Your task to perform on an android device: open a new tab in the chrome app Image 0: 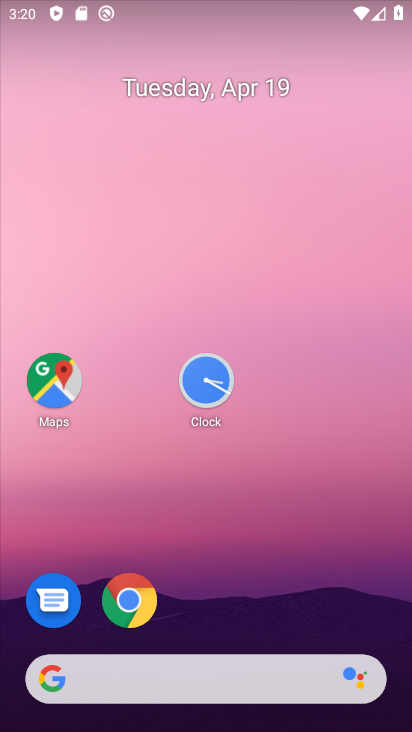
Step 0: drag from (276, 620) to (248, 156)
Your task to perform on an android device: open a new tab in the chrome app Image 1: 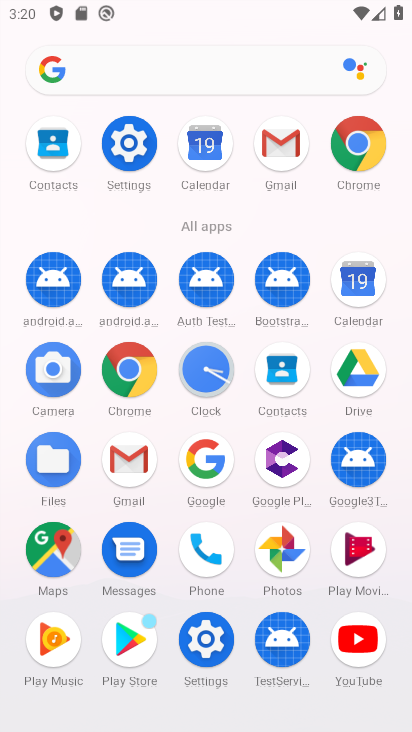
Step 1: click (353, 150)
Your task to perform on an android device: open a new tab in the chrome app Image 2: 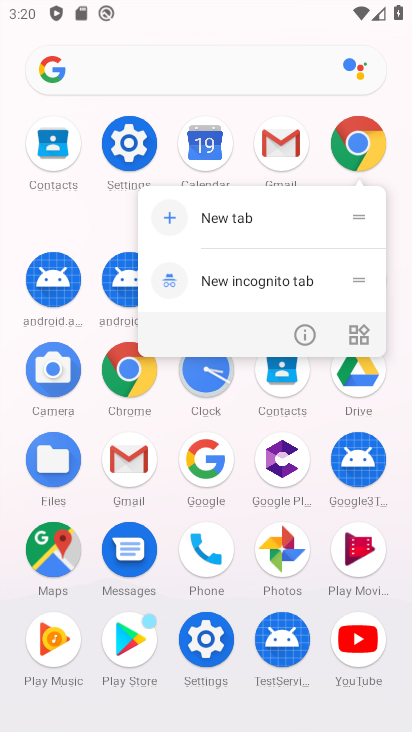
Step 2: click (353, 150)
Your task to perform on an android device: open a new tab in the chrome app Image 3: 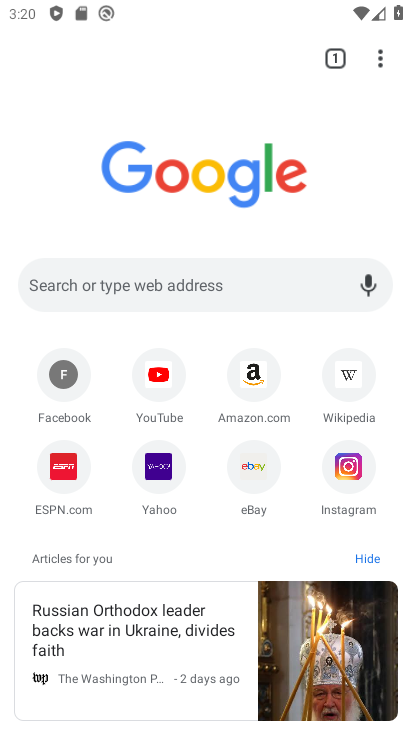
Step 3: click (383, 56)
Your task to perform on an android device: open a new tab in the chrome app Image 4: 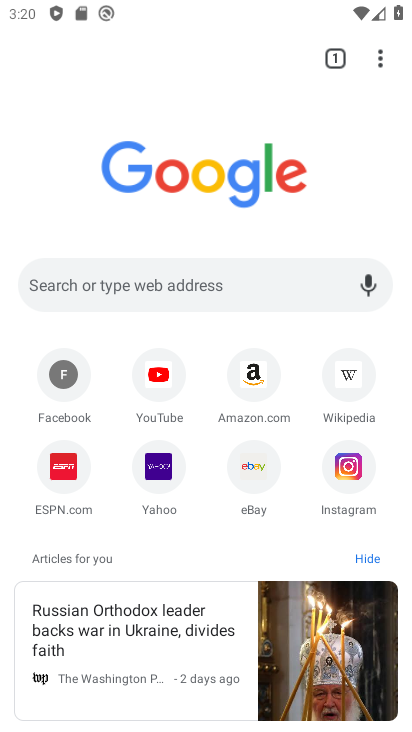
Step 4: click (381, 49)
Your task to perform on an android device: open a new tab in the chrome app Image 5: 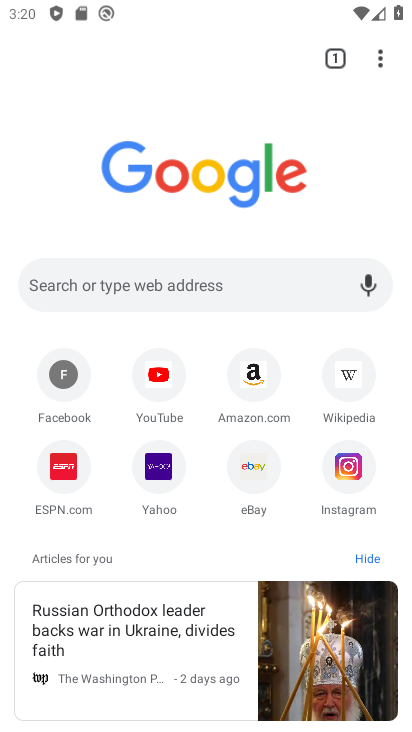
Step 5: click (382, 48)
Your task to perform on an android device: open a new tab in the chrome app Image 6: 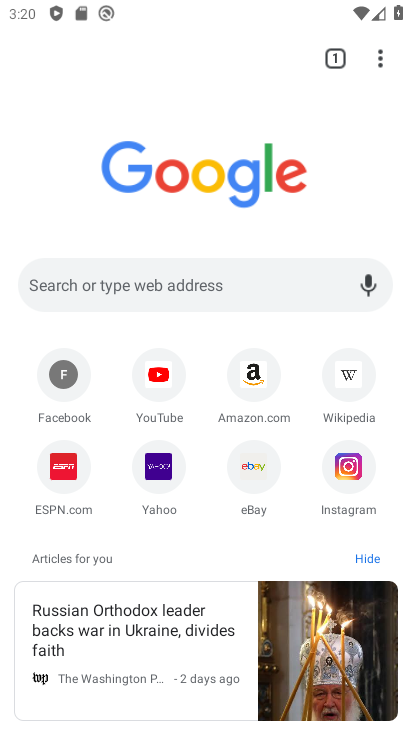
Step 6: click (381, 56)
Your task to perform on an android device: open a new tab in the chrome app Image 7: 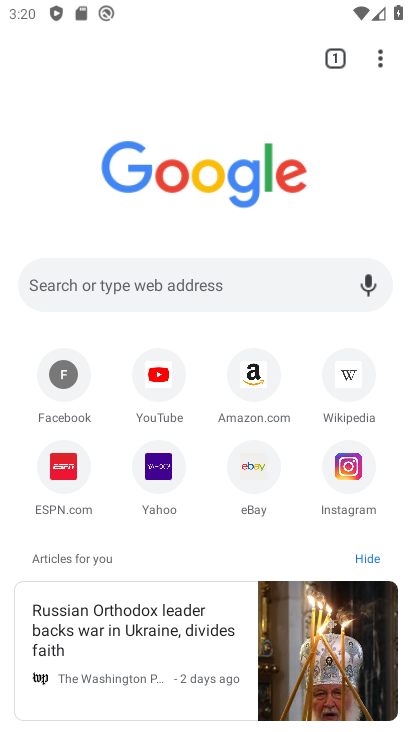
Step 7: click (379, 57)
Your task to perform on an android device: open a new tab in the chrome app Image 8: 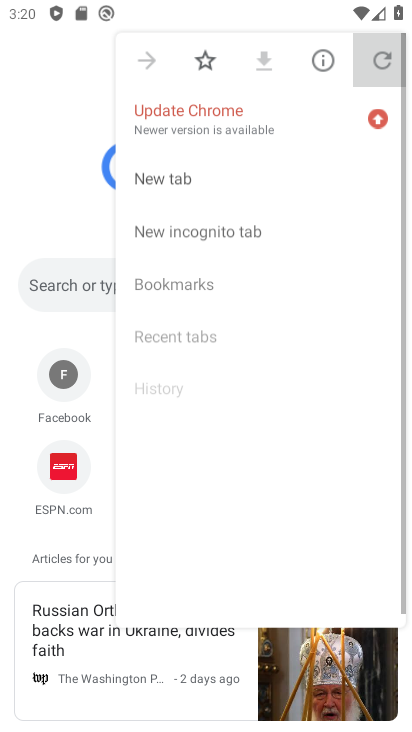
Step 8: click (379, 57)
Your task to perform on an android device: open a new tab in the chrome app Image 9: 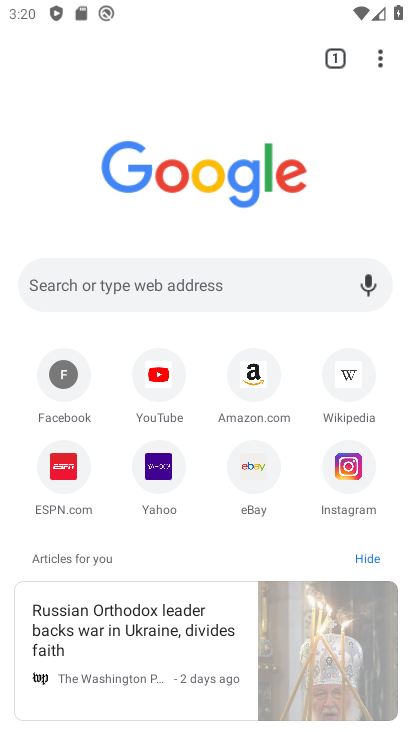
Step 9: click (380, 70)
Your task to perform on an android device: open a new tab in the chrome app Image 10: 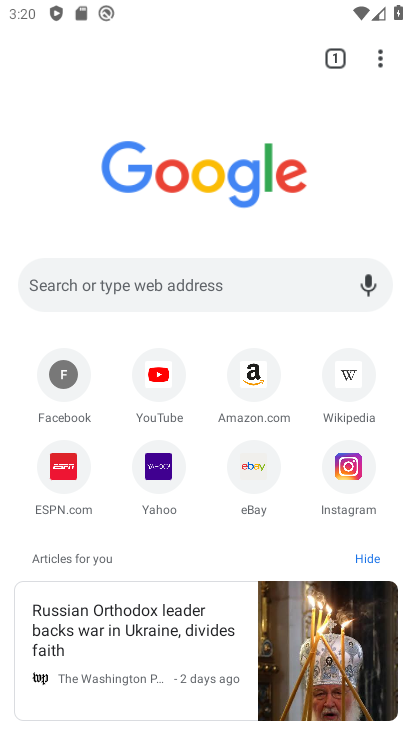
Step 10: click (378, 59)
Your task to perform on an android device: open a new tab in the chrome app Image 11: 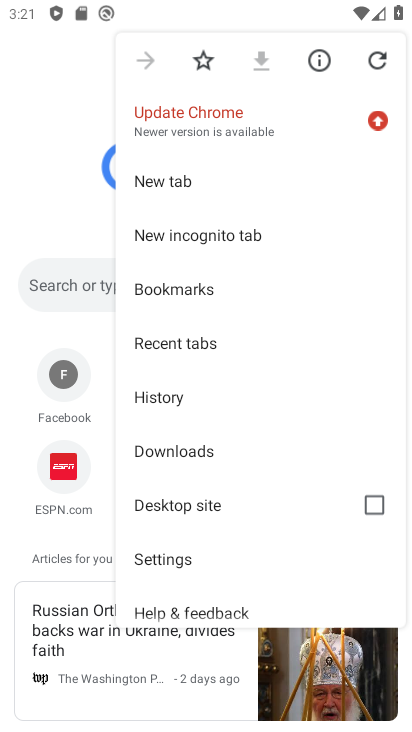
Step 11: click (168, 177)
Your task to perform on an android device: open a new tab in the chrome app Image 12: 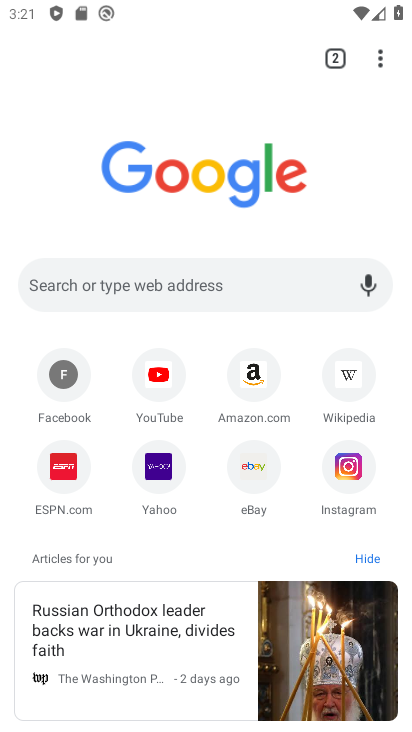
Step 12: task complete